Your task to perform on an android device: Open settings on Google Maps Image 0: 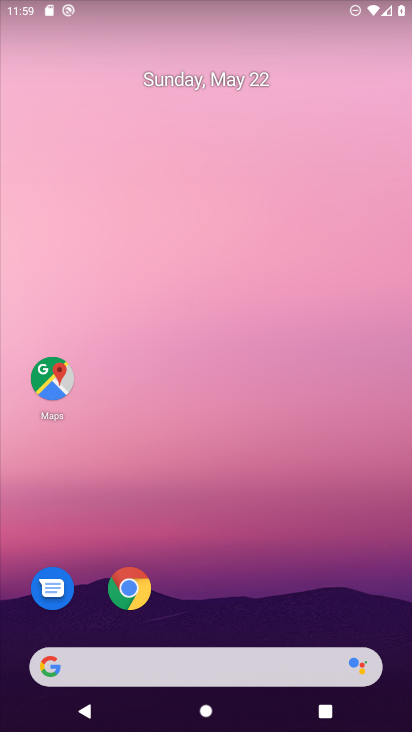
Step 0: drag from (281, 685) to (262, 232)
Your task to perform on an android device: Open settings on Google Maps Image 1: 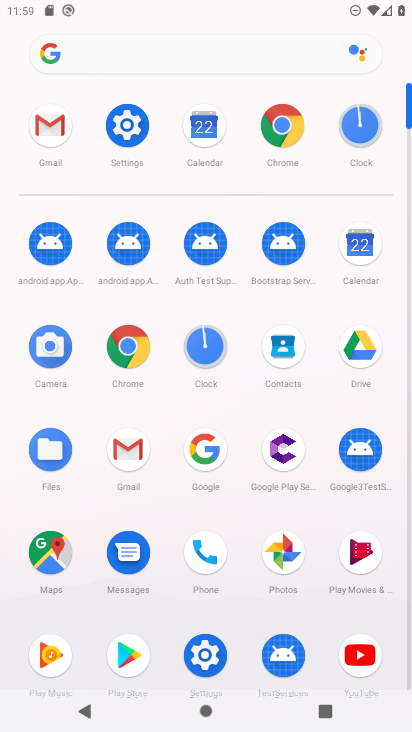
Step 1: click (46, 555)
Your task to perform on an android device: Open settings on Google Maps Image 2: 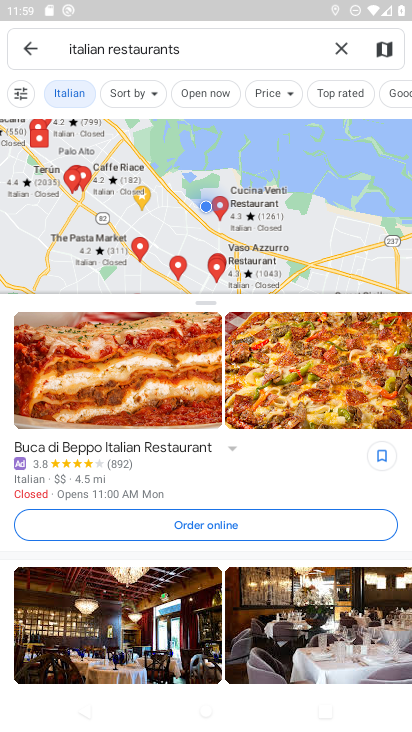
Step 2: click (26, 56)
Your task to perform on an android device: Open settings on Google Maps Image 3: 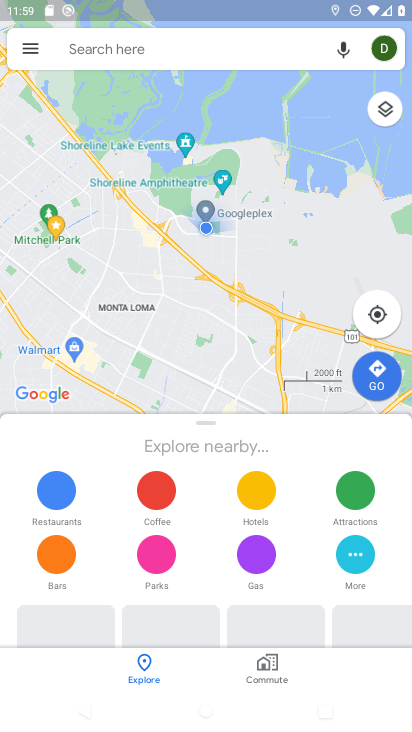
Step 3: click (26, 55)
Your task to perform on an android device: Open settings on Google Maps Image 4: 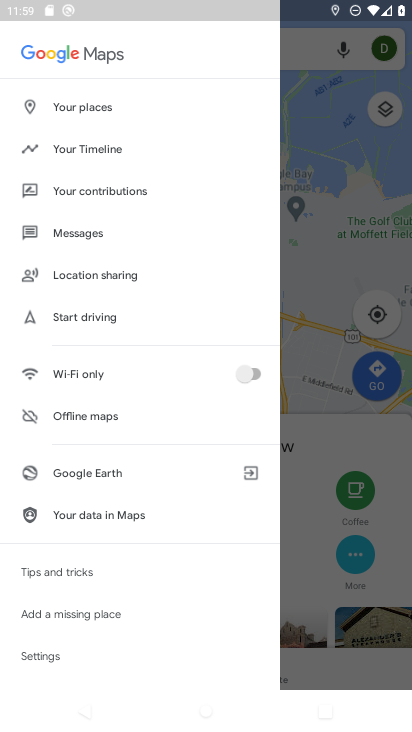
Step 4: click (60, 662)
Your task to perform on an android device: Open settings on Google Maps Image 5: 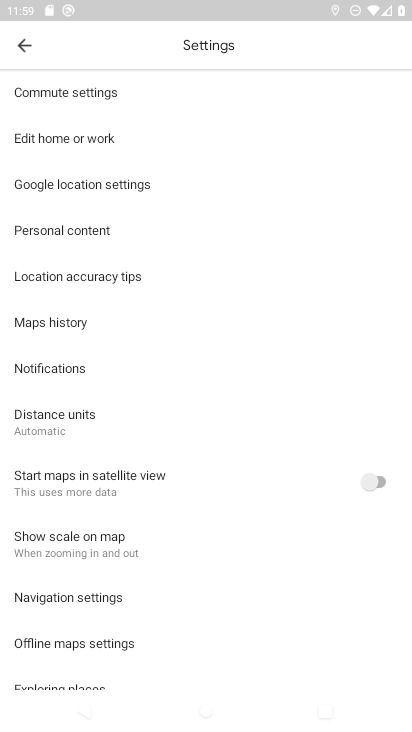
Step 5: task complete